Your task to perform on an android device: turn off translation in the chrome app Image 0: 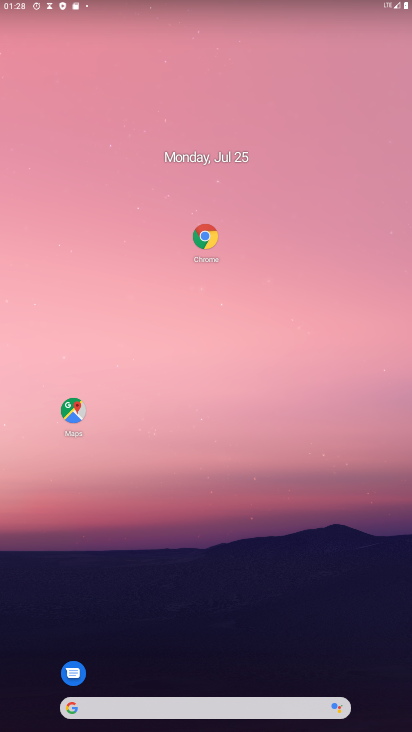
Step 0: drag from (311, 213) to (316, 32)
Your task to perform on an android device: turn off translation in the chrome app Image 1: 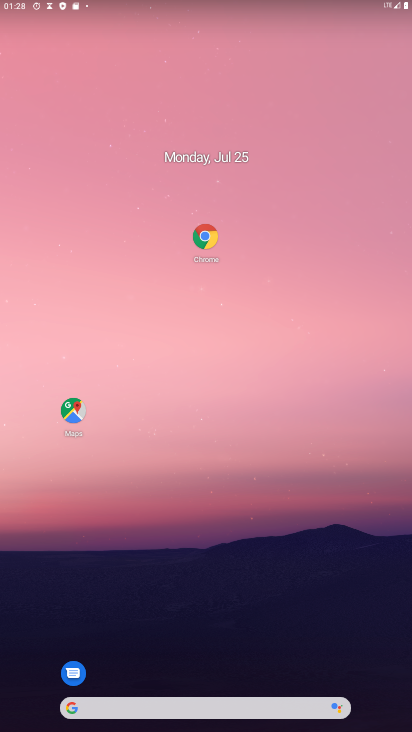
Step 1: drag from (232, 687) to (260, 27)
Your task to perform on an android device: turn off translation in the chrome app Image 2: 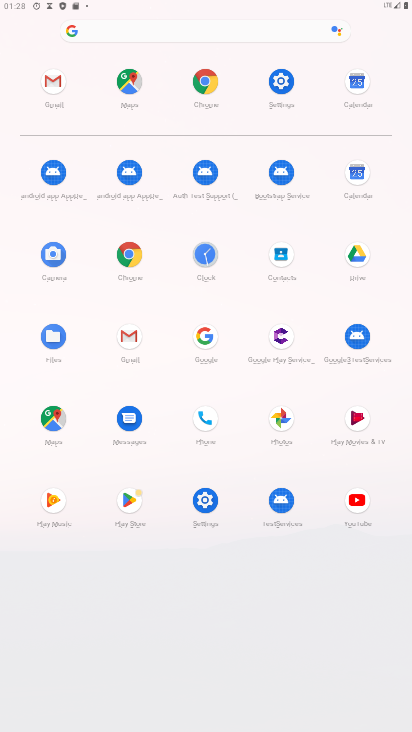
Step 2: click (131, 254)
Your task to perform on an android device: turn off translation in the chrome app Image 3: 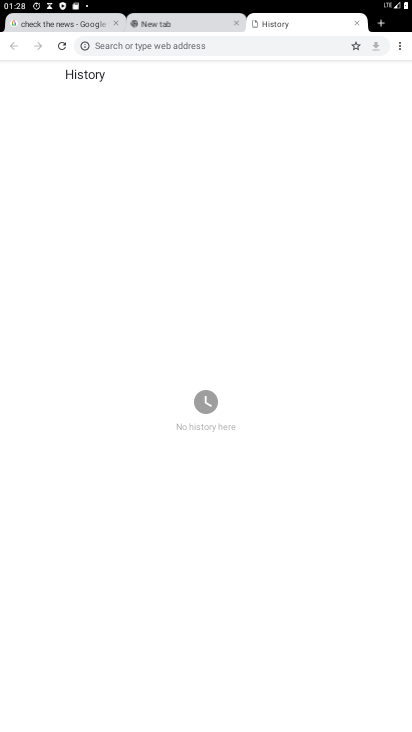
Step 3: drag from (400, 44) to (314, 205)
Your task to perform on an android device: turn off translation in the chrome app Image 4: 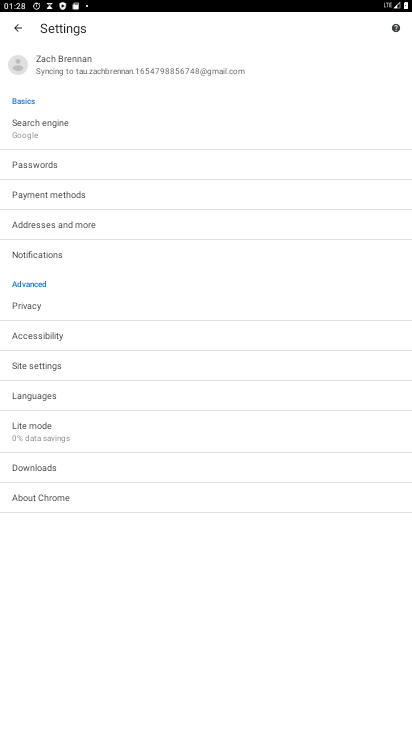
Step 4: click (72, 360)
Your task to perform on an android device: turn off translation in the chrome app Image 5: 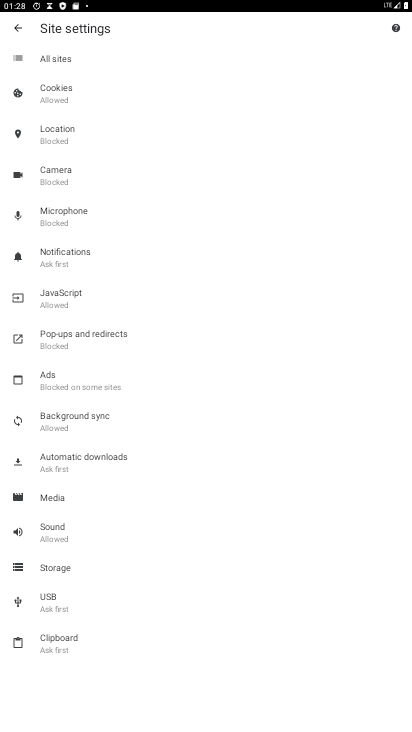
Step 5: press back button
Your task to perform on an android device: turn off translation in the chrome app Image 6: 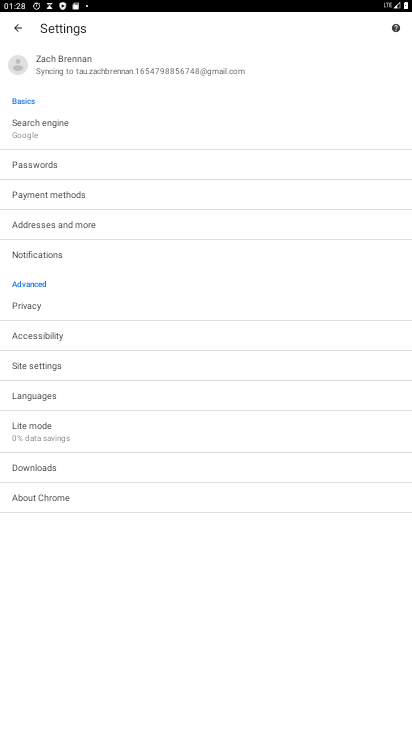
Step 6: click (81, 400)
Your task to perform on an android device: turn off translation in the chrome app Image 7: 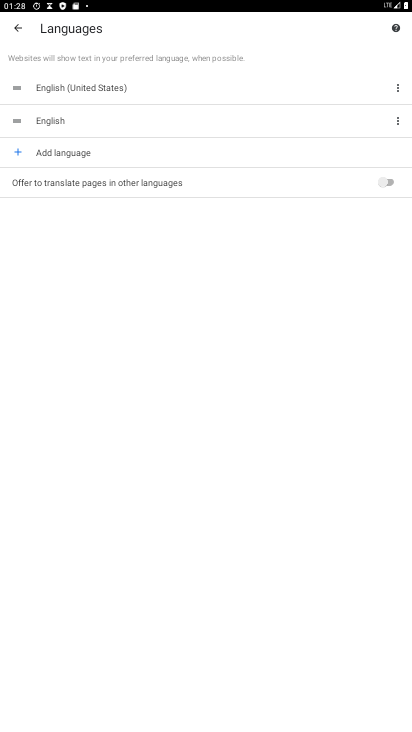
Step 7: task complete